Your task to perform on an android device: add a contact in the contacts app Image 0: 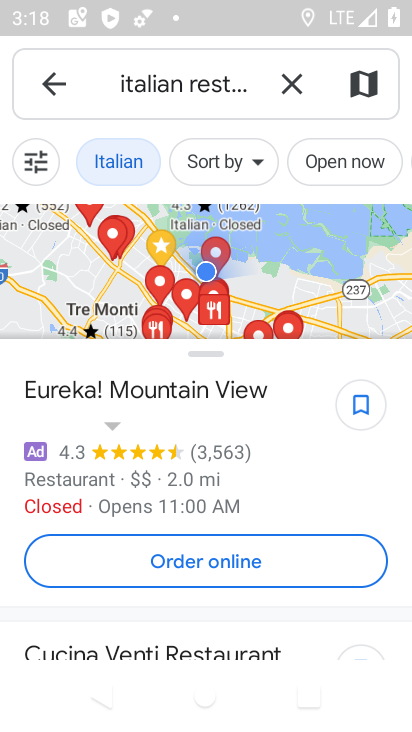
Step 0: press home button
Your task to perform on an android device: add a contact in the contacts app Image 1: 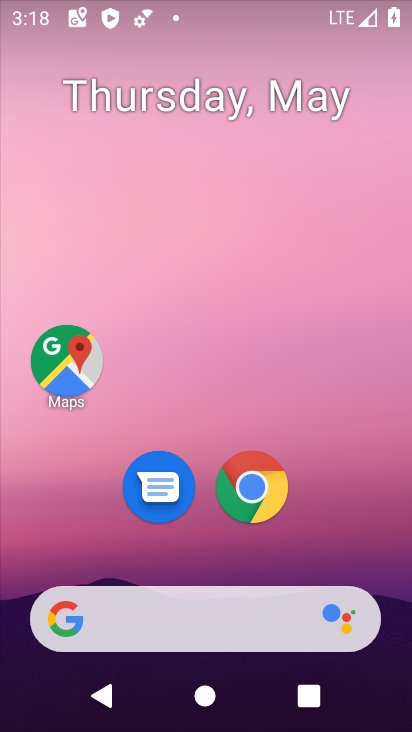
Step 1: drag from (196, 587) to (251, 213)
Your task to perform on an android device: add a contact in the contacts app Image 2: 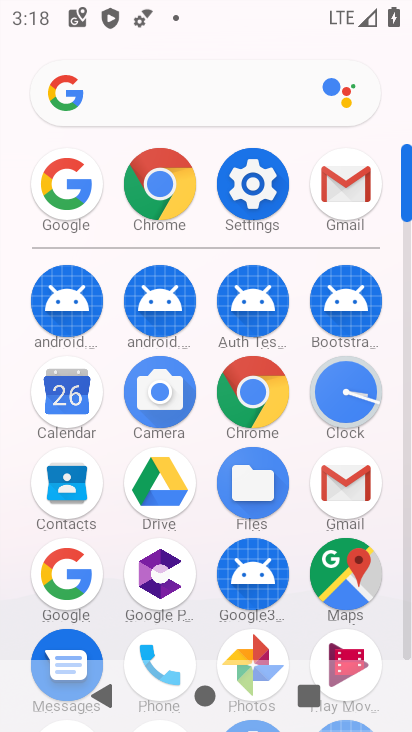
Step 2: click (73, 494)
Your task to perform on an android device: add a contact in the contacts app Image 3: 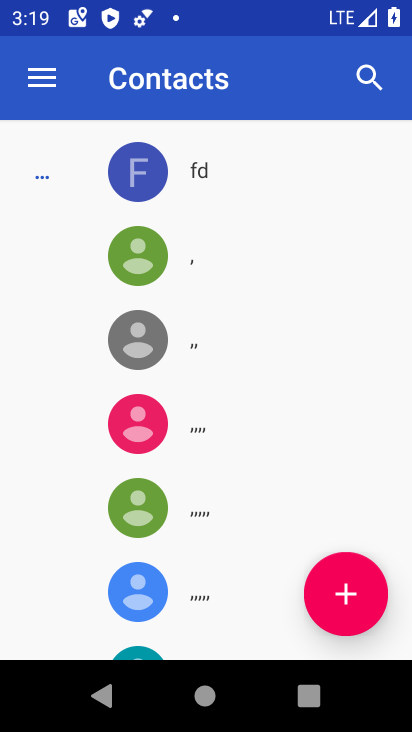
Step 3: click (363, 620)
Your task to perform on an android device: add a contact in the contacts app Image 4: 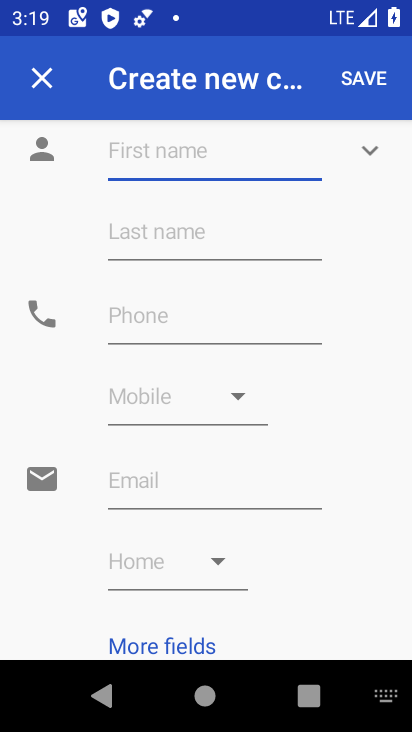
Step 4: type "dsvfjkdfnvk"
Your task to perform on an android device: add a contact in the contacts app Image 5: 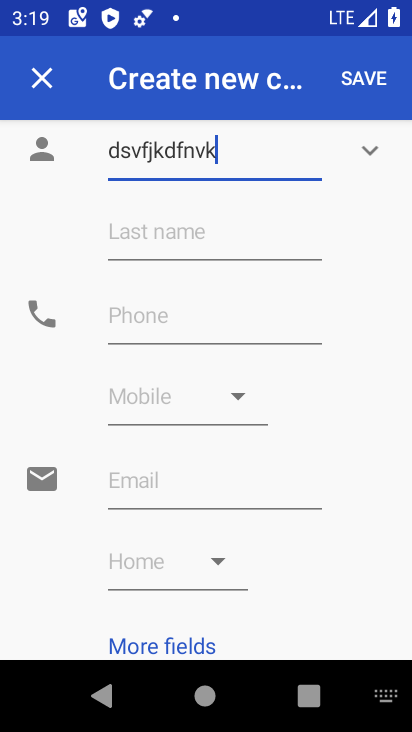
Step 5: click (240, 322)
Your task to perform on an android device: add a contact in the contacts app Image 6: 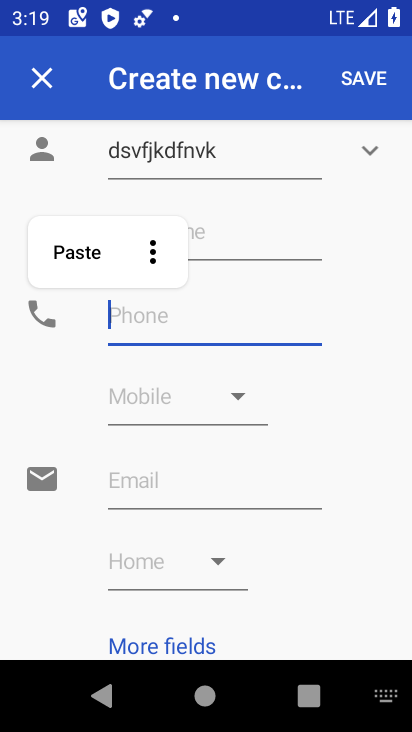
Step 6: type "987665"
Your task to perform on an android device: add a contact in the contacts app Image 7: 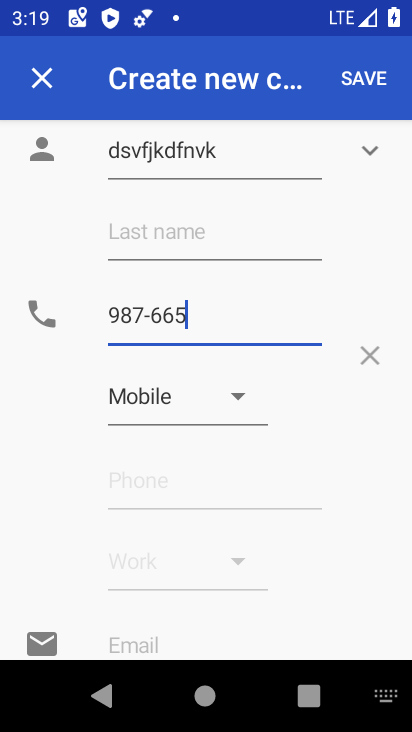
Step 7: type ""
Your task to perform on an android device: add a contact in the contacts app Image 8: 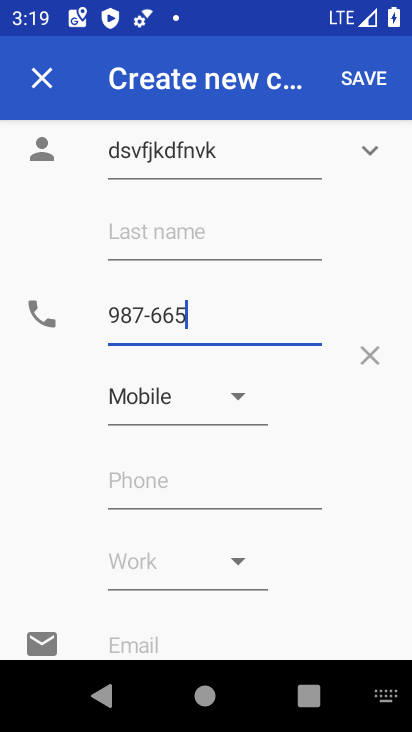
Step 8: click (360, 71)
Your task to perform on an android device: add a contact in the contacts app Image 9: 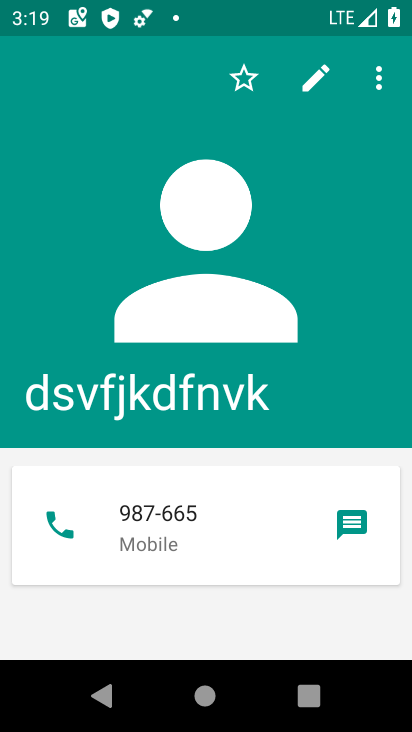
Step 9: task complete